Your task to perform on an android device: show emergency info Image 0: 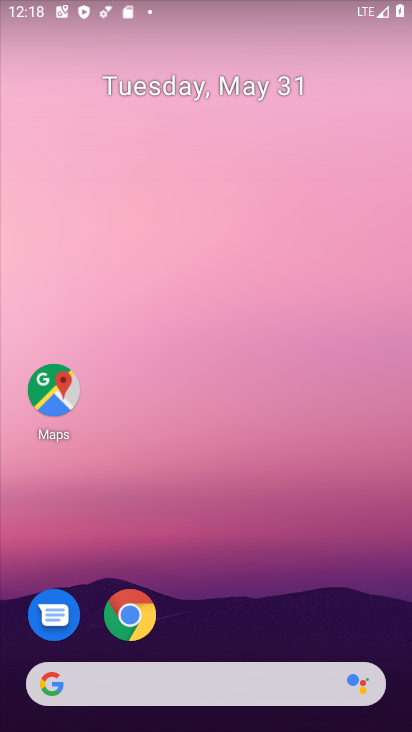
Step 0: drag from (230, 624) to (296, 4)
Your task to perform on an android device: show emergency info Image 1: 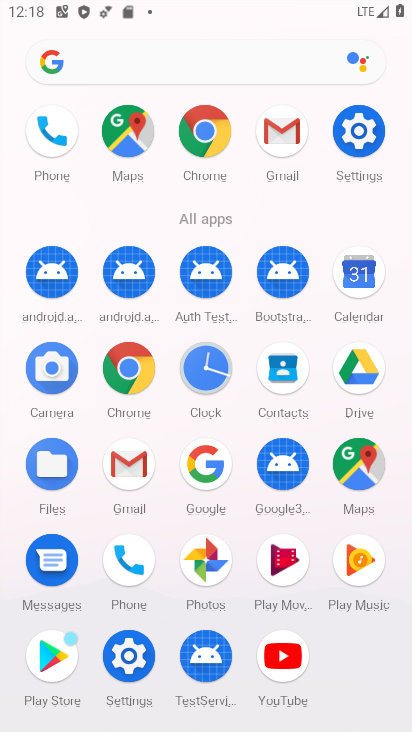
Step 1: click (136, 664)
Your task to perform on an android device: show emergency info Image 2: 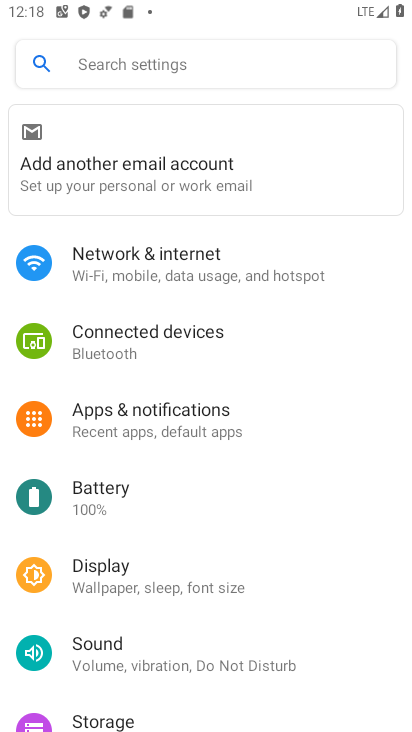
Step 2: drag from (122, 681) to (173, 251)
Your task to perform on an android device: show emergency info Image 3: 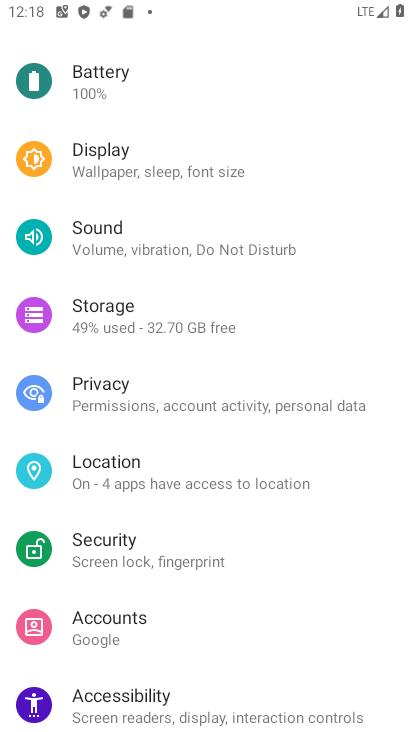
Step 3: drag from (111, 611) to (174, 112)
Your task to perform on an android device: show emergency info Image 4: 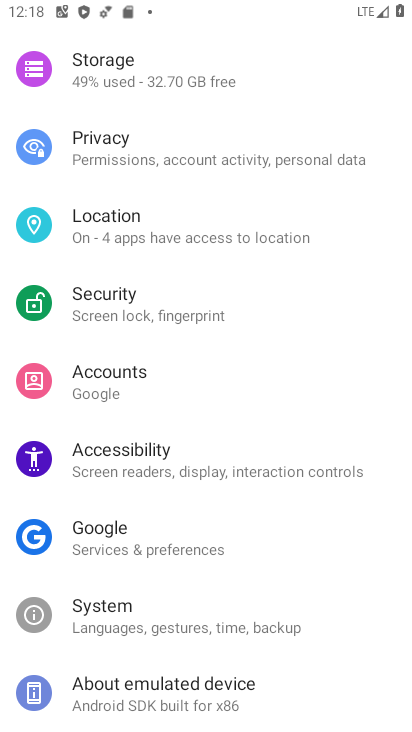
Step 4: drag from (141, 655) to (197, 399)
Your task to perform on an android device: show emergency info Image 5: 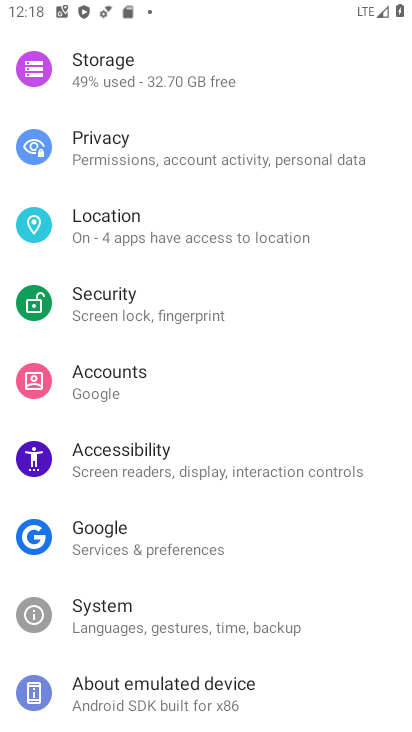
Step 5: click (160, 702)
Your task to perform on an android device: show emergency info Image 6: 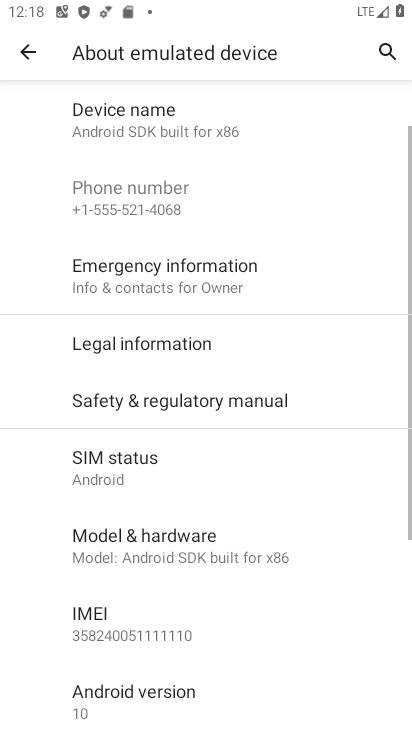
Step 6: click (237, 278)
Your task to perform on an android device: show emergency info Image 7: 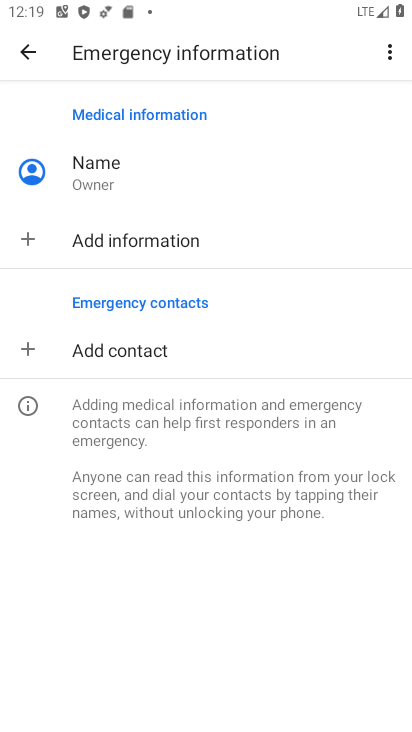
Step 7: task complete